Your task to perform on an android device: Turn on the flashlight Image 0: 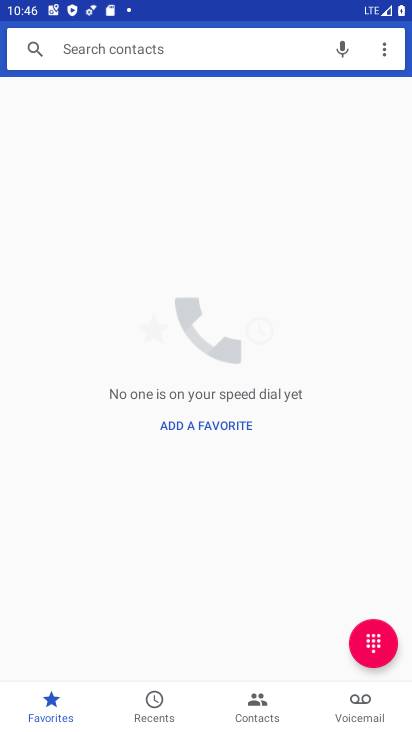
Step 0: press home button
Your task to perform on an android device: Turn on the flashlight Image 1: 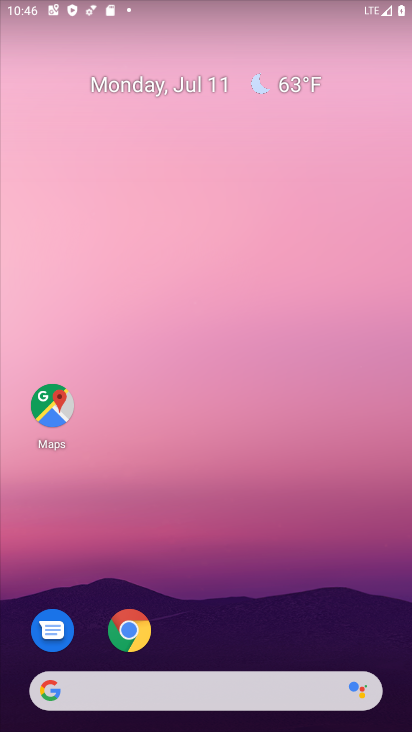
Step 1: drag from (219, 14) to (237, 495)
Your task to perform on an android device: Turn on the flashlight Image 2: 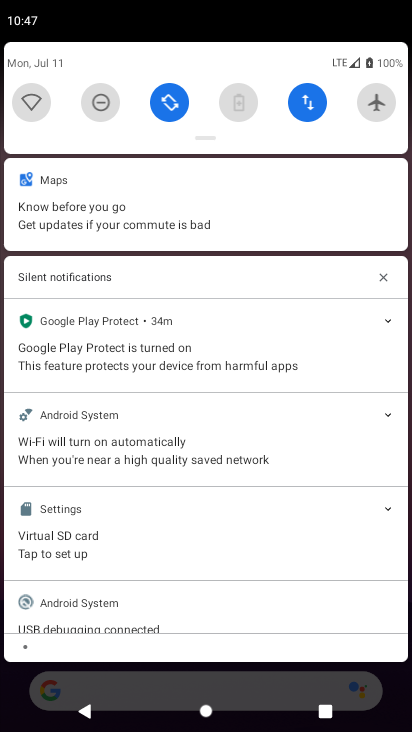
Step 2: drag from (204, 140) to (188, 444)
Your task to perform on an android device: Turn on the flashlight Image 3: 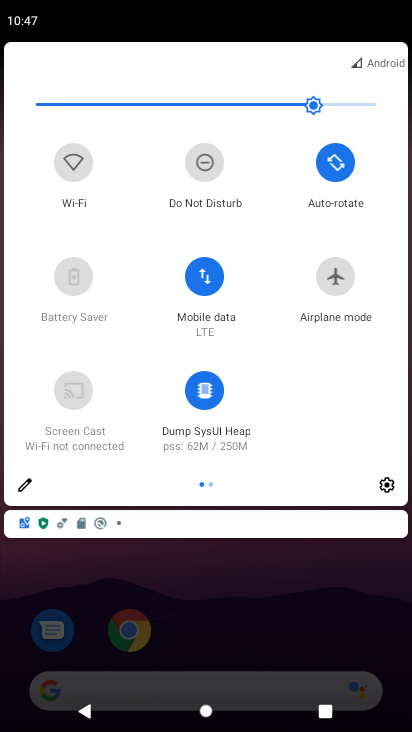
Step 3: click (15, 485)
Your task to perform on an android device: Turn on the flashlight Image 4: 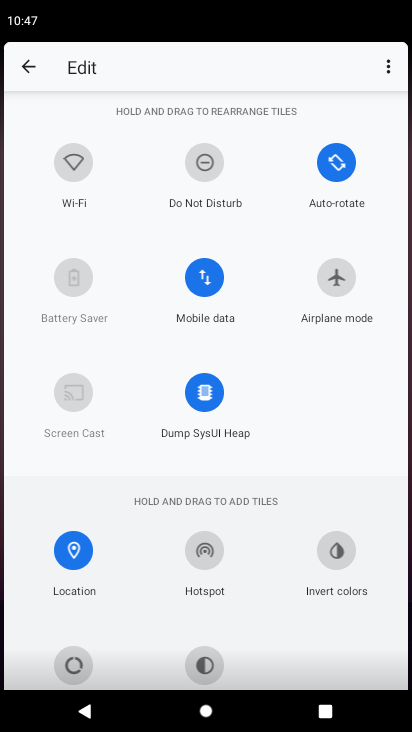
Step 4: task complete